Your task to perform on an android device: Open calendar and show me the second week of next month Image 0: 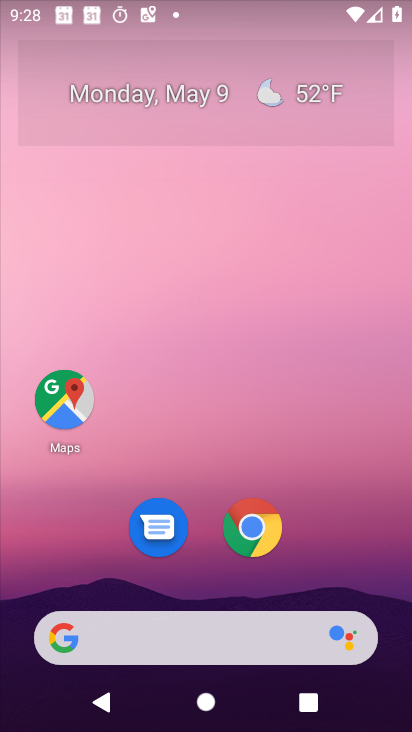
Step 0: drag from (353, 549) to (346, 246)
Your task to perform on an android device: Open calendar and show me the second week of next month Image 1: 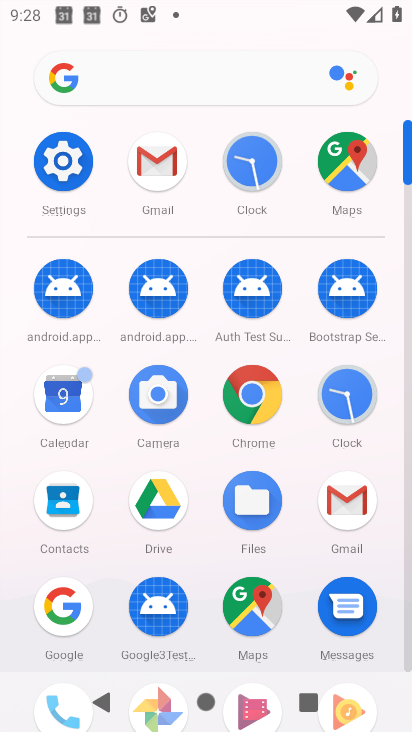
Step 1: click (54, 390)
Your task to perform on an android device: Open calendar and show me the second week of next month Image 2: 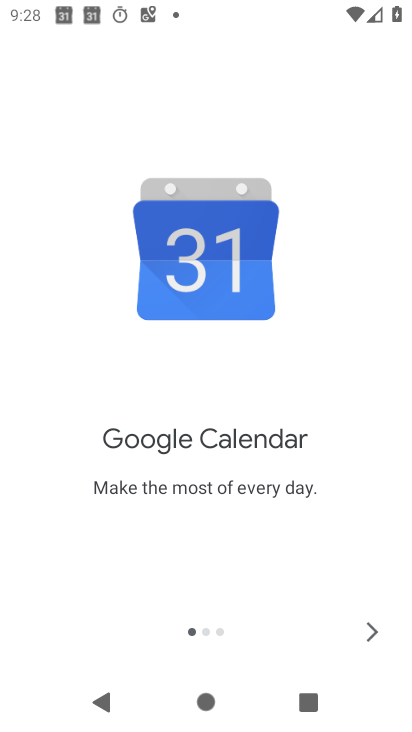
Step 2: click (369, 641)
Your task to perform on an android device: Open calendar and show me the second week of next month Image 3: 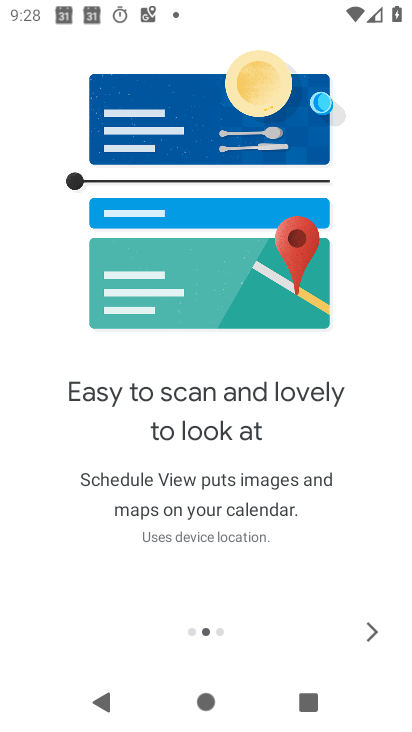
Step 3: click (370, 640)
Your task to perform on an android device: Open calendar and show me the second week of next month Image 4: 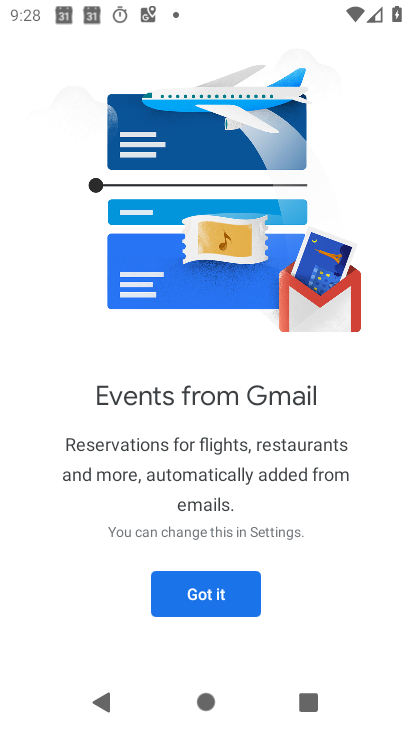
Step 4: click (370, 640)
Your task to perform on an android device: Open calendar and show me the second week of next month Image 5: 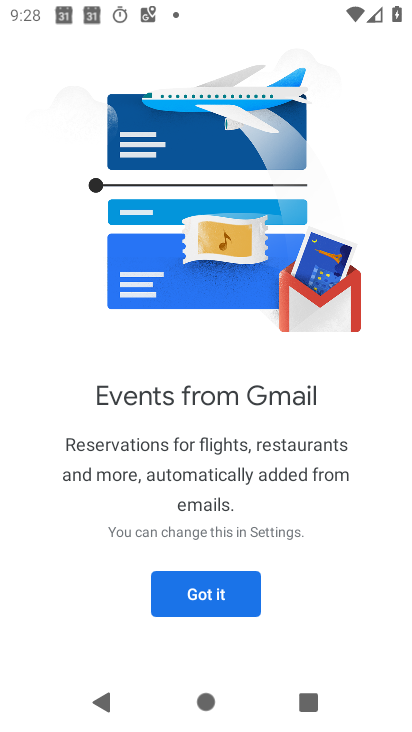
Step 5: click (216, 590)
Your task to perform on an android device: Open calendar and show me the second week of next month Image 6: 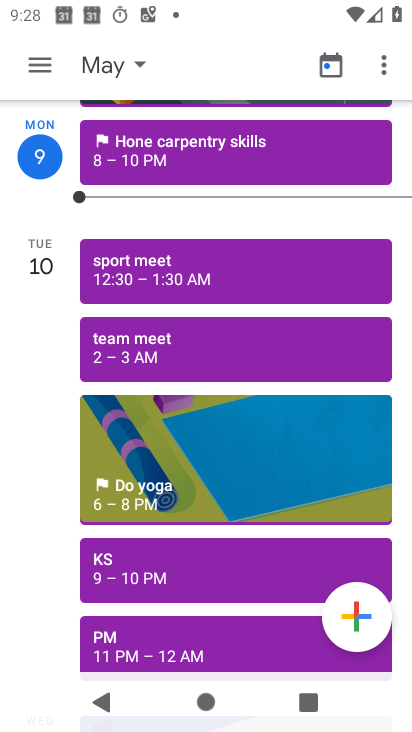
Step 6: click (109, 60)
Your task to perform on an android device: Open calendar and show me the second week of next month Image 7: 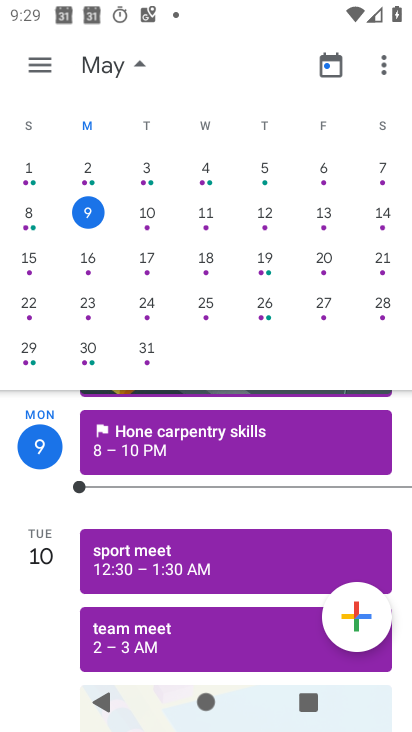
Step 7: drag from (312, 151) to (3, 157)
Your task to perform on an android device: Open calendar and show me the second week of next month Image 8: 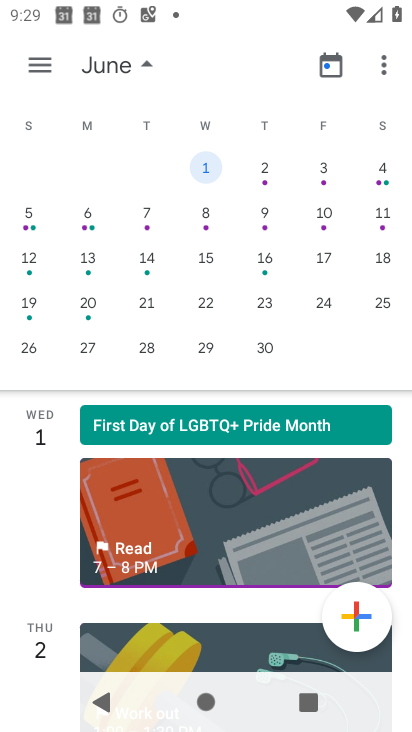
Step 8: click (21, 223)
Your task to perform on an android device: Open calendar and show me the second week of next month Image 9: 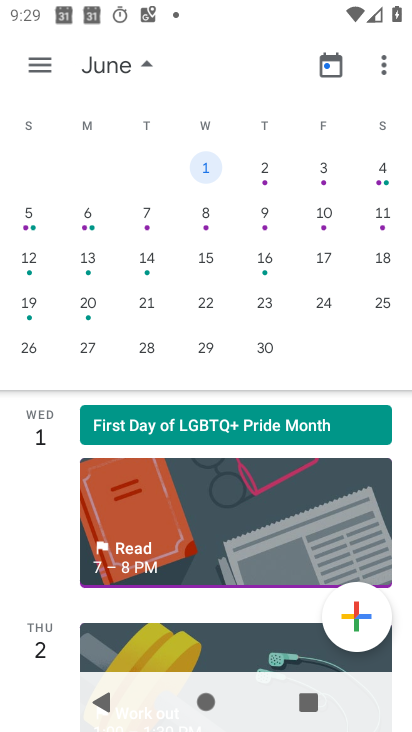
Step 9: click (33, 219)
Your task to perform on an android device: Open calendar and show me the second week of next month Image 10: 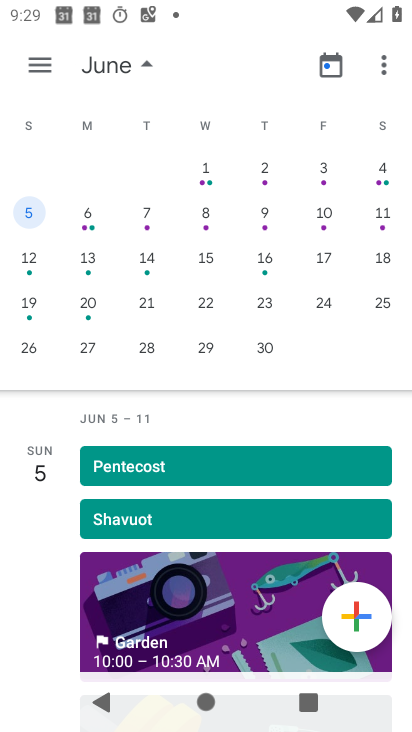
Step 10: task complete